Your task to perform on an android device: Open the calendar app, open the side menu, and click the "Day" option Image 0: 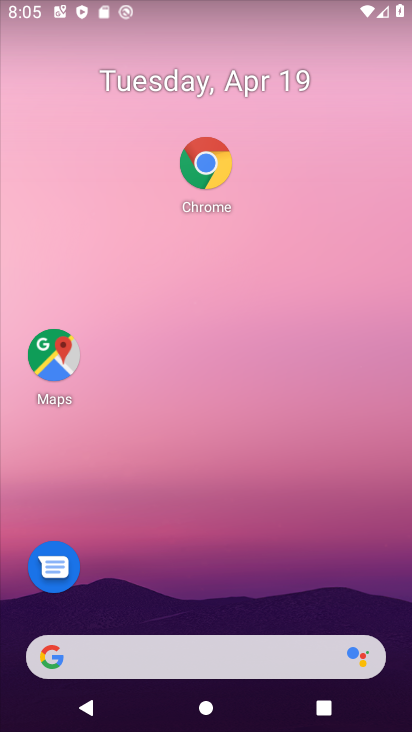
Step 0: drag from (170, 585) to (252, 122)
Your task to perform on an android device: Open the calendar app, open the side menu, and click the "Day" option Image 1: 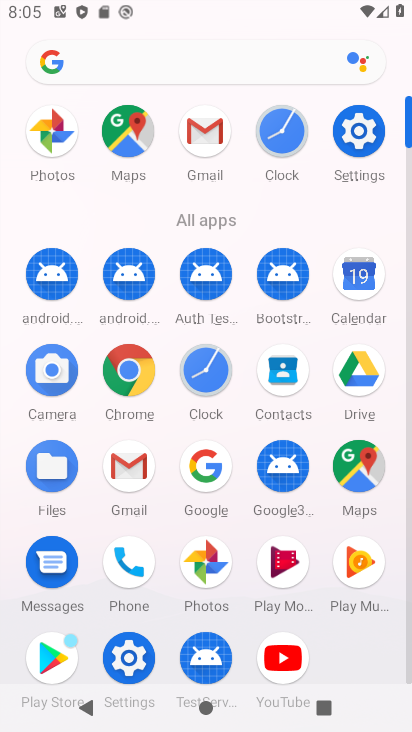
Step 1: click (352, 270)
Your task to perform on an android device: Open the calendar app, open the side menu, and click the "Day" option Image 2: 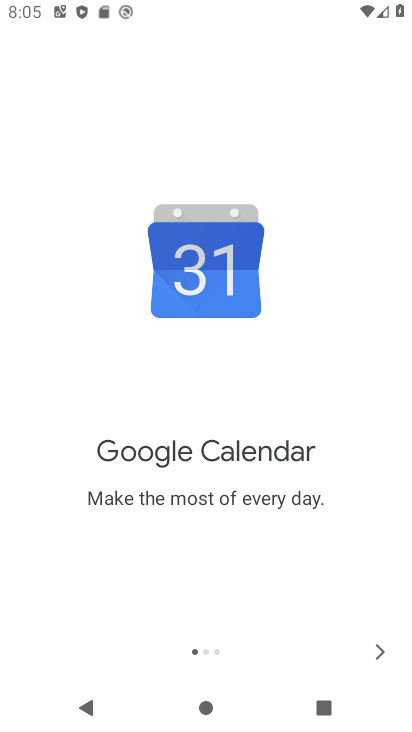
Step 2: click (385, 655)
Your task to perform on an android device: Open the calendar app, open the side menu, and click the "Day" option Image 3: 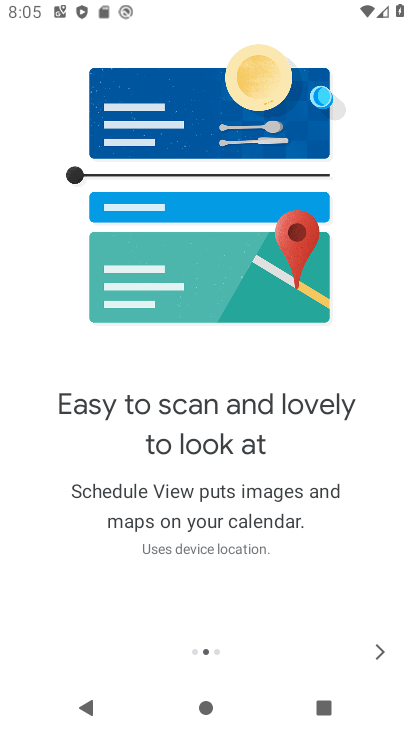
Step 3: click (385, 655)
Your task to perform on an android device: Open the calendar app, open the side menu, and click the "Day" option Image 4: 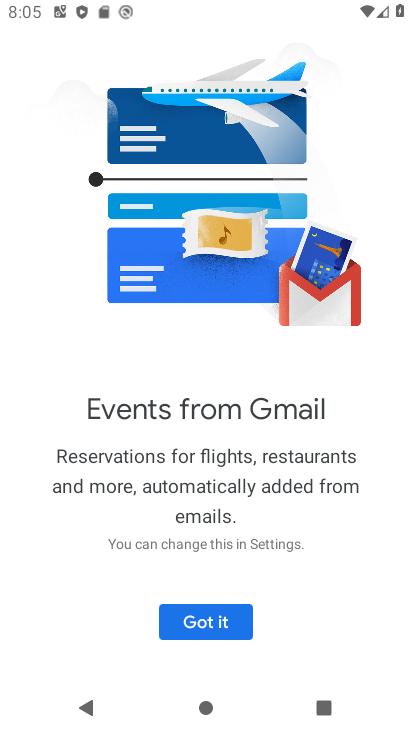
Step 4: click (213, 621)
Your task to perform on an android device: Open the calendar app, open the side menu, and click the "Day" option Image 5: 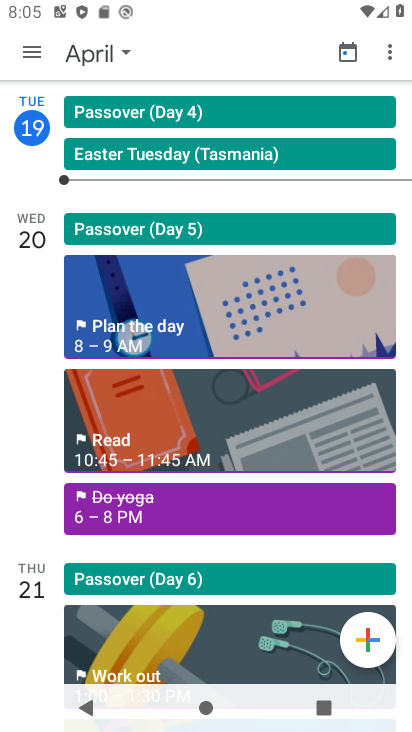
Step 5: click (36, 54)
Your task to perform on an android device: Open the calendar app, open the side menu, and click the "Day" option Image 6: 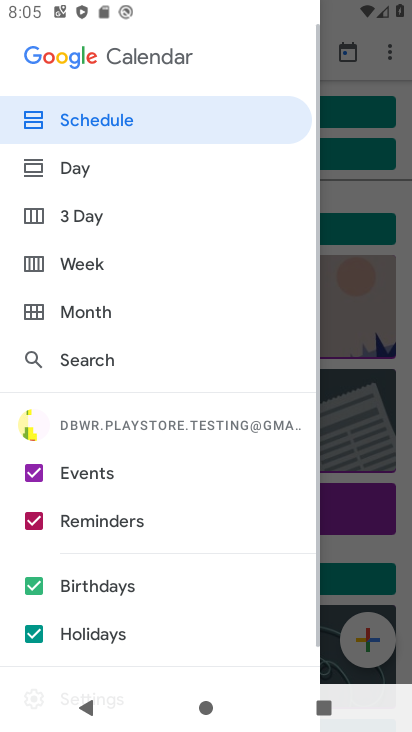
Step 6: click (111, 172)
Your task to perform on an android device: Open the calendar app, open the side menu, and click the "Day" option Image 7: 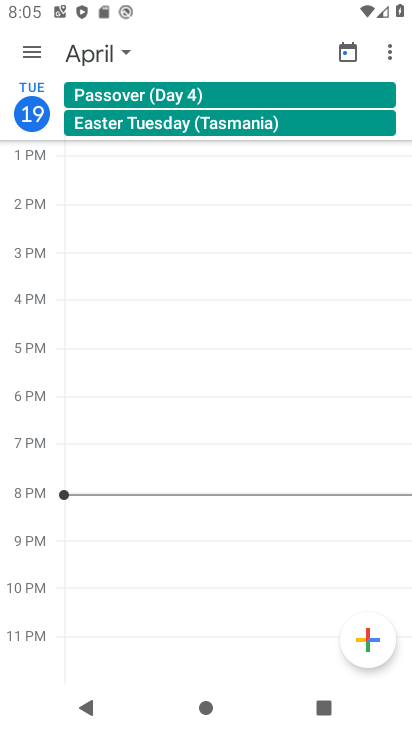
Step 7: task complete